Your task to perform on an android device: change keyboard looks Image 0: 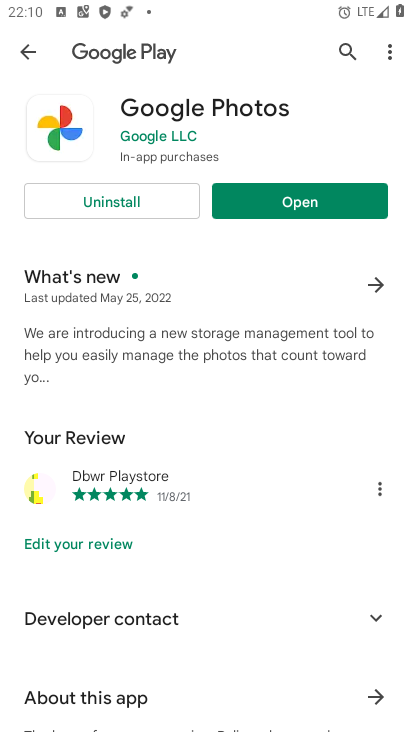
Step 0: press home button
Your task to perform on an android device: change keyboard looks Image 1: 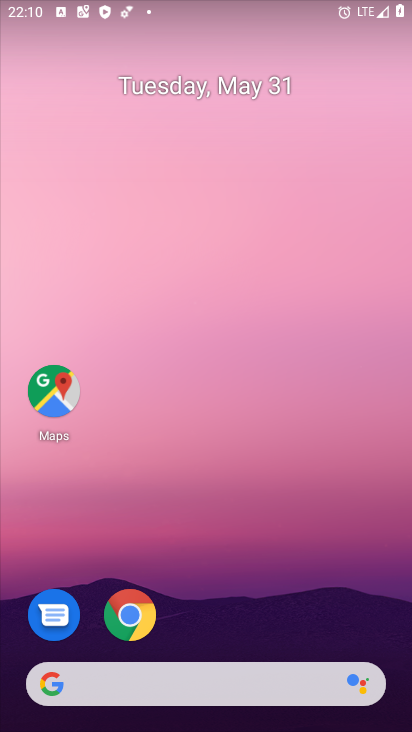
Step 1: drag from (367, 621) to (315, 19)
Your task to perform on an android device: change keyboard looks Image 2: 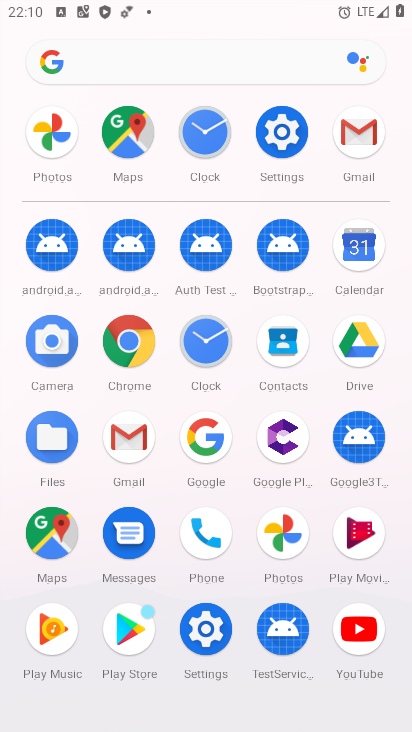
Step 2: click (205, 628)
Your task to perform on an android device: change keyboard looks Image 3: 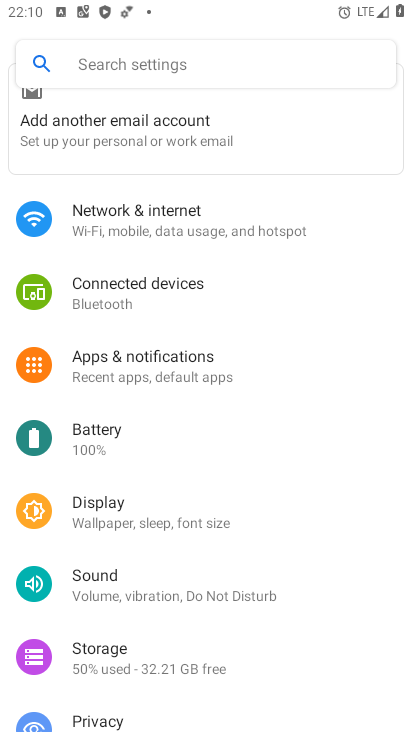
Step 3: drag from (315, 627) to (302, 219)
Your task to perform on an android device: change keyboard looks Image 4: 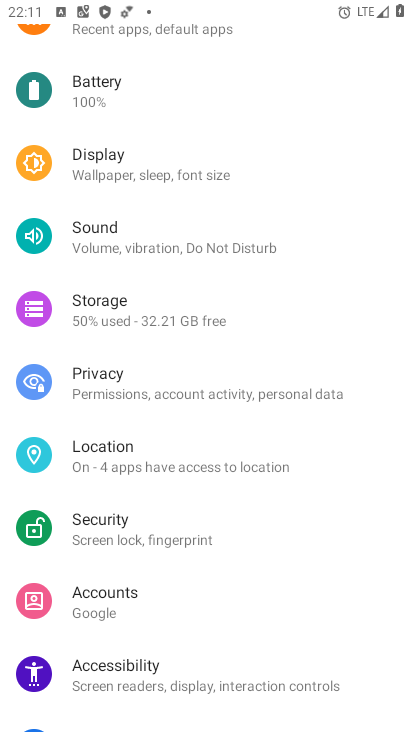
Step 4: drag from (200, 652) to (274, 265)
Your task to perform on an android device: change keyboard looks Image 5: 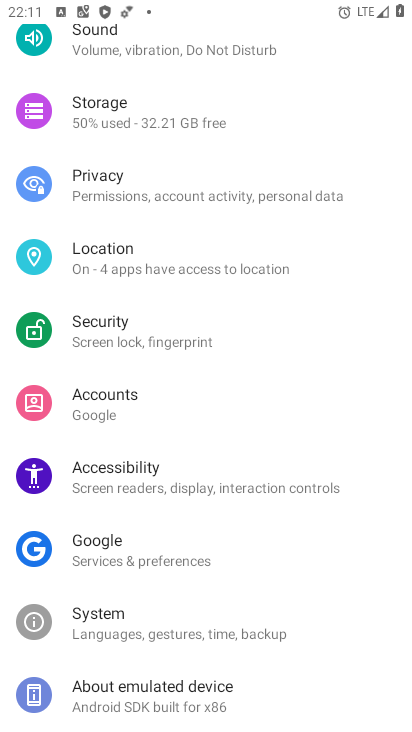
Step 5: click (123, 624)
Your task to perform on an android device: change keyboard looks Image 6: 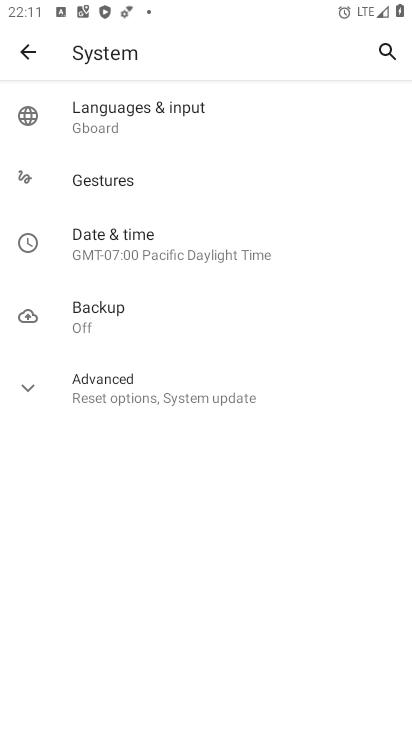
Step 6: click (102, 117)
Your task to perform on an android device: change keyboard looks Image 7: 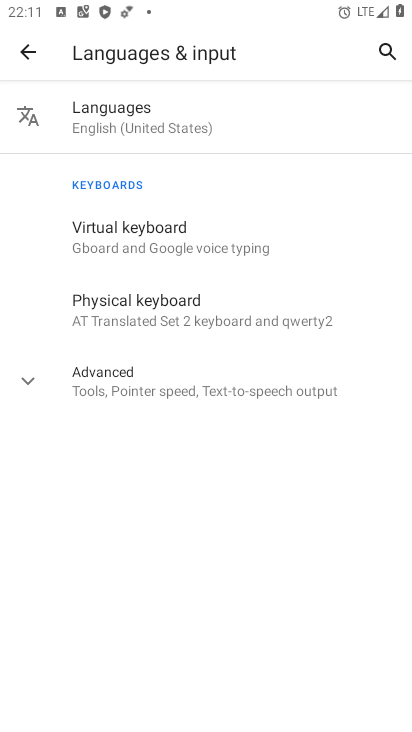
Step 7: click (108, 308)
Your task to perform on an android device: change keyboard looks Image 8: 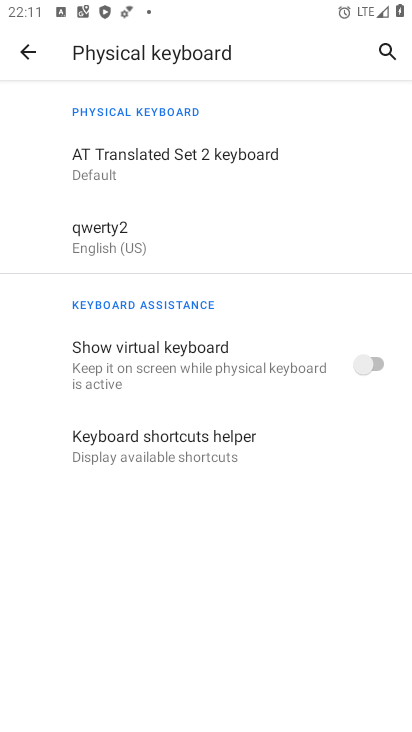
Step 8: click (116, 244)
Your task to perform on an android device: change keyboard looks Image 9: 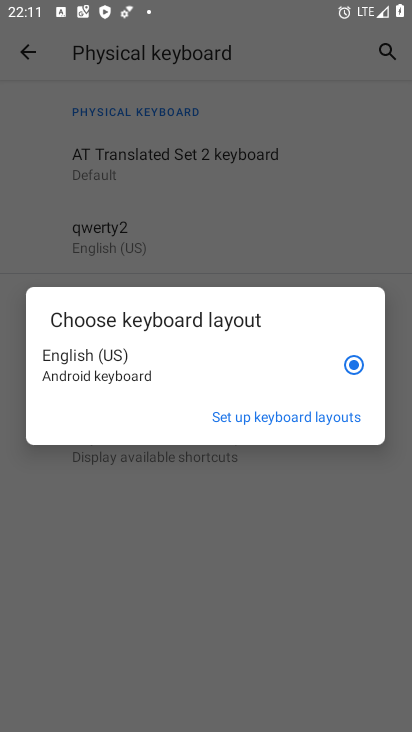
Step 9: click (279, 411)
Your task to perform on an android device: change keyboard looks Image 10: 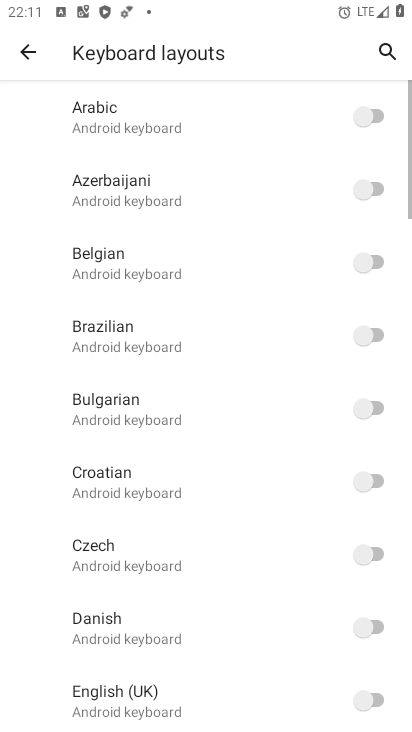
Step 10: drag from (228, 618) to (246, 110)
Your task to perform on an android device: change keyboard looks Image 11: 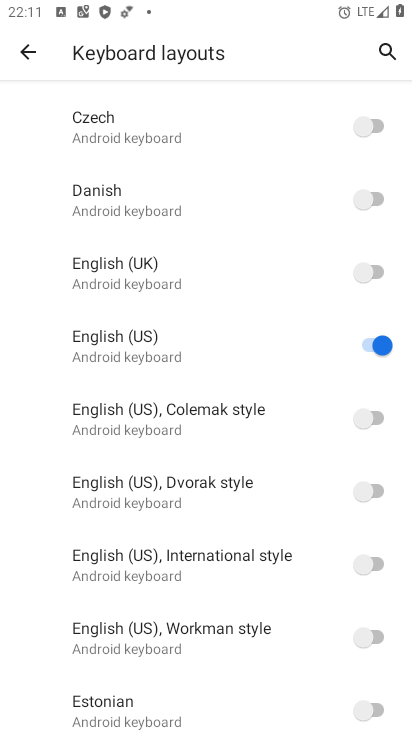
Step 11: click (364, 487)
Your task to perform on an android device: change keyboard looks Image 12: 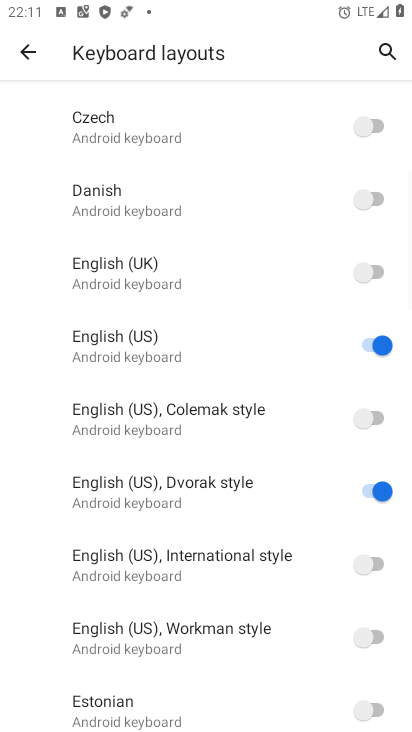
Step 12: task complete